Your task to perform on an android device: delete browsing data in the chrome app Image 0: 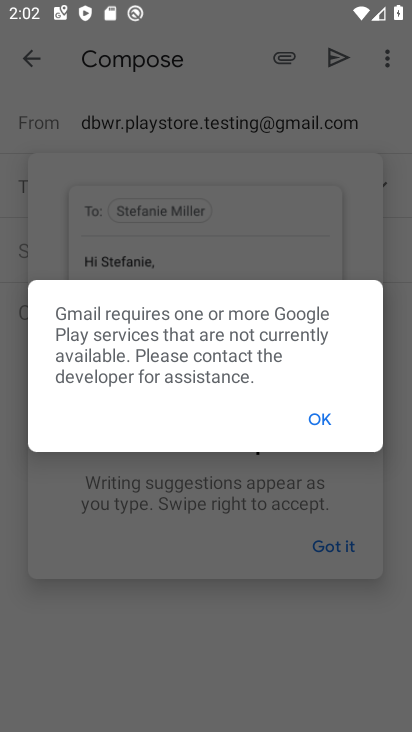
Step 0: press home button
Your task to perform on an android device: delete browsing data in the chrome app Image 1: 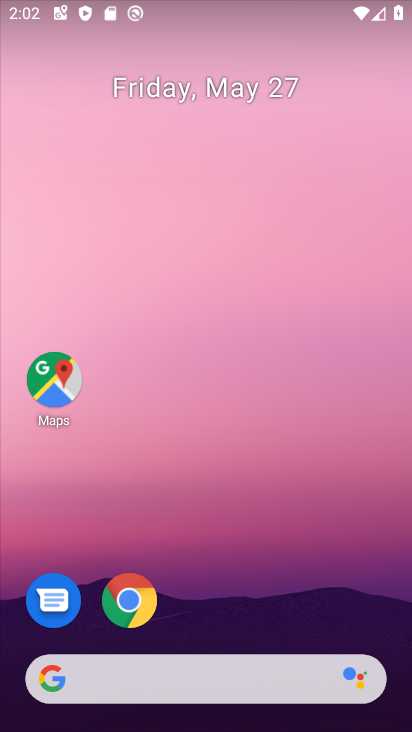
Step 1: click (133, 599)
Your task to perform on an android device: delete browsing data in the chrome app Image 2: 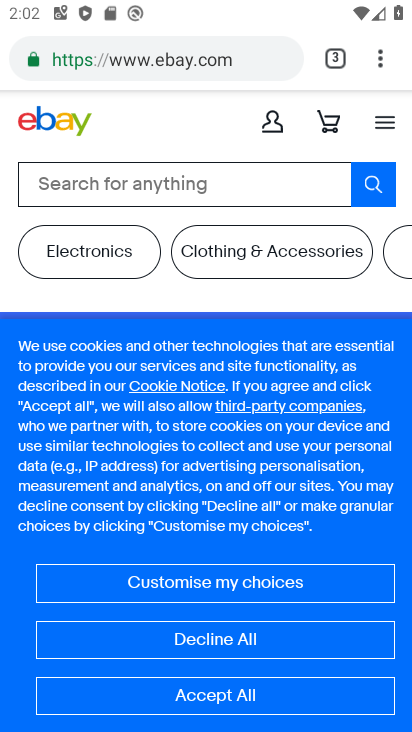
Step 2: click (382, 64)
Your task to perform on an android device: delete browsing data in the chrome app Image 3: 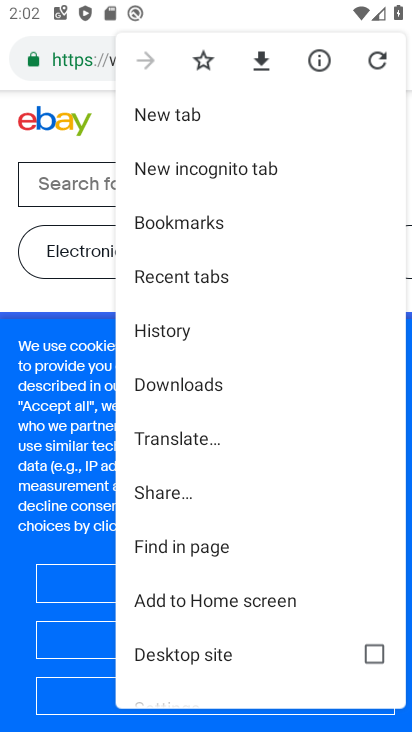
Step 3: click (171, 329)
Your task to perform on an android device: delete browsing data in the chrome app Image 4: 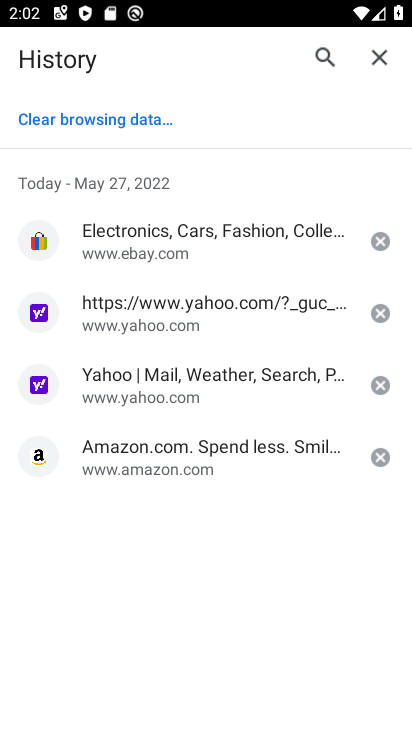
Step 4: click (113, 120)
Your task to perform on an android device: delete browsing data in the chrome app Image 5: 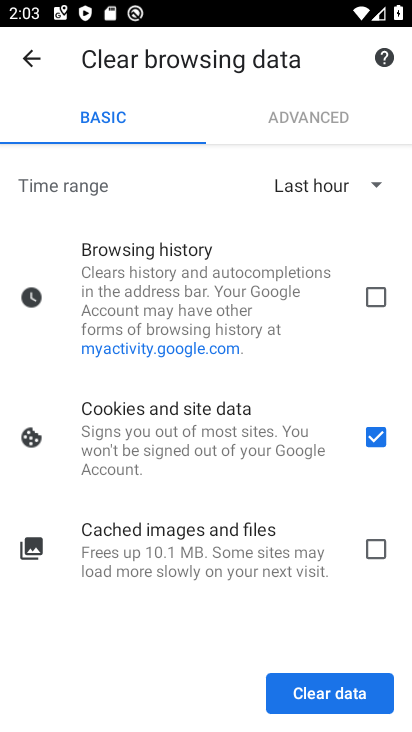
Step 5: click (377, 433)
Your task to perform on an android device: delete browsing data in the chrome app Image 6: 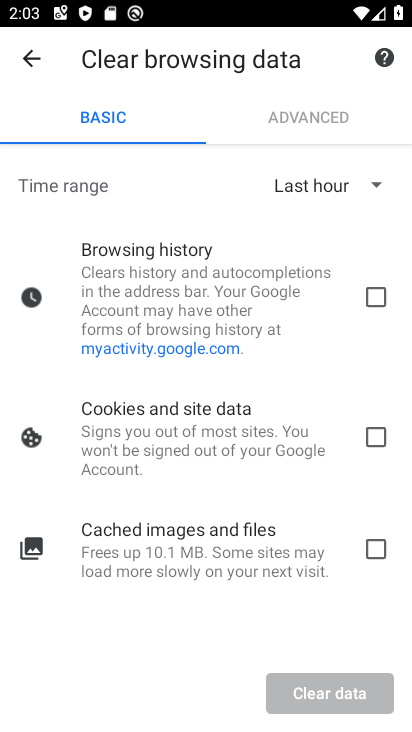
Step 6: click (378, 297)
Your task to perform on an android device: delete browsing data in the chrome app Image 7: 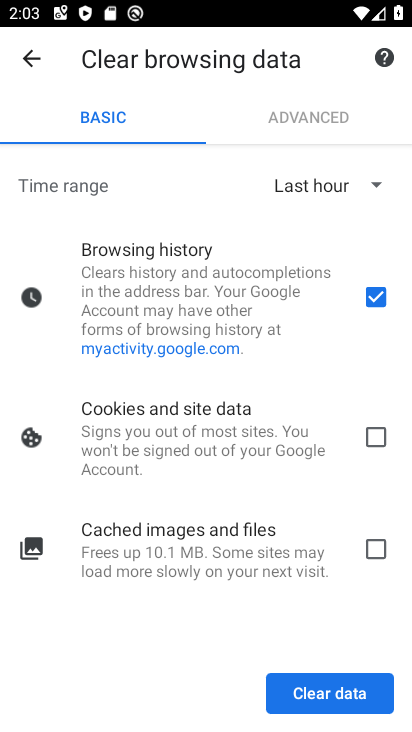
Step 7: click (336, 694)
Your task to perform on an android device: delete browsing data in the chrome app Image 8: 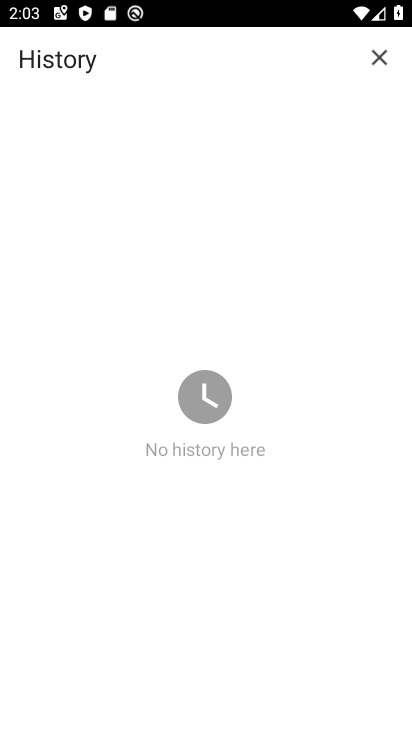
Step 8: task complete